Your task to perform on an android device: Set the phone to "Do not disturb". Image 0: 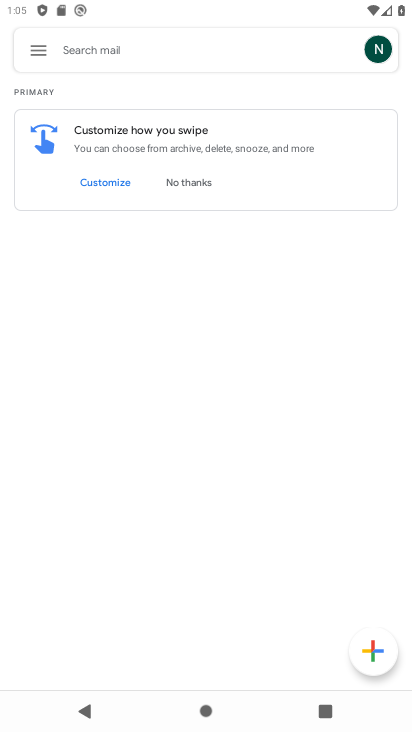
Step 0: press home button
Your task to perform on an android device: Set the phone to "Do not disturb". Image 1: 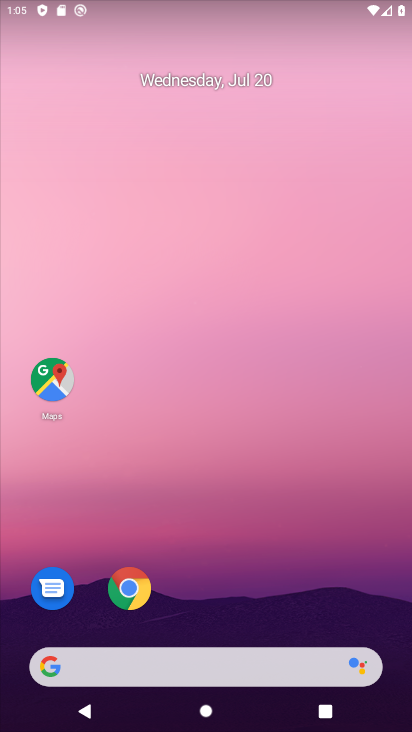
Step 1: drag from (376, 619) to (290, 164)
Your task to perform on an android device: Set the phone to "Do not disturb". Image 2: 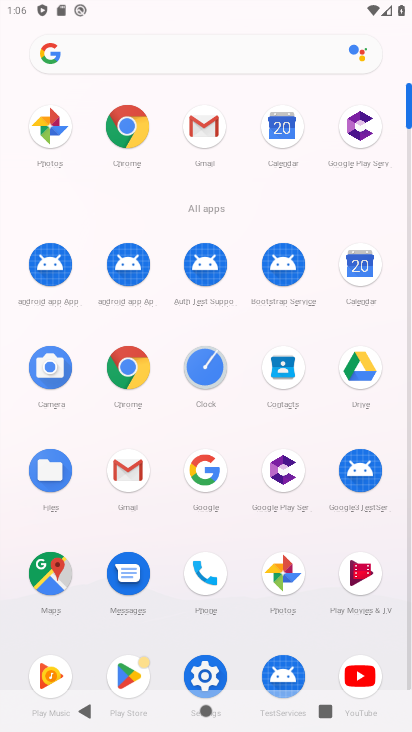
Step 2: click (217, 671)
Your task to perform on an android device: Set the phone to "Do not disturb". Image 3: 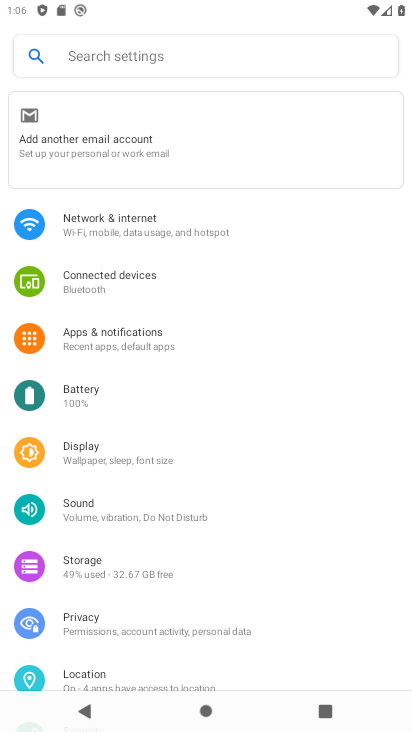
Step 3: click (179, 513)
Your task to perform on an android device: Set the phone to "Do not disturb". Image 4: 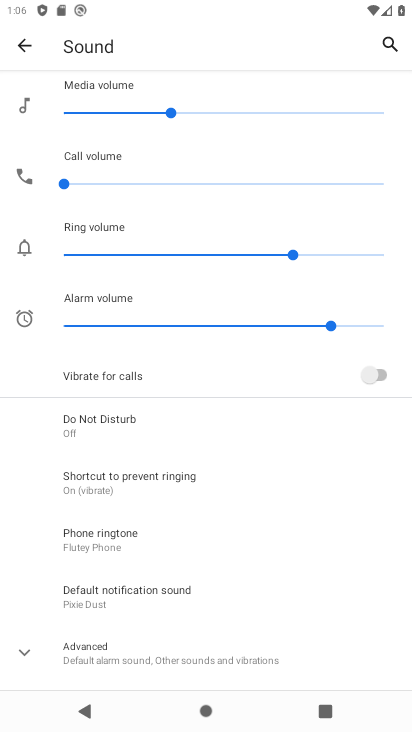
Step 4: click (197, 427)
Your task to perform on an android device: Set the phone to "Do not disturb". Image 5: 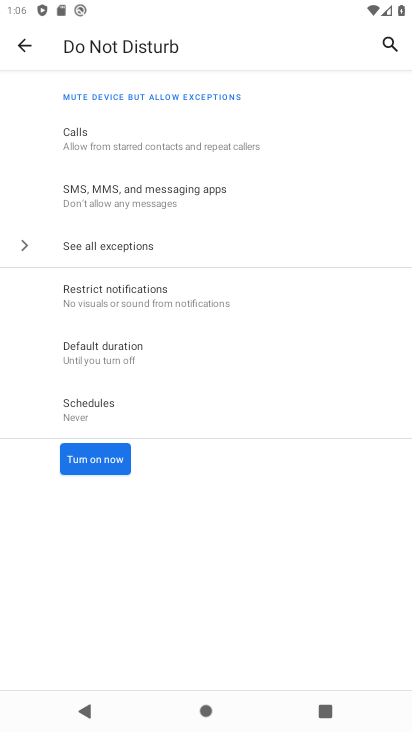
Step 5: click (116, 458)
Your task to perform on an android device: Set the phone to "Do not disturb". Image 6: 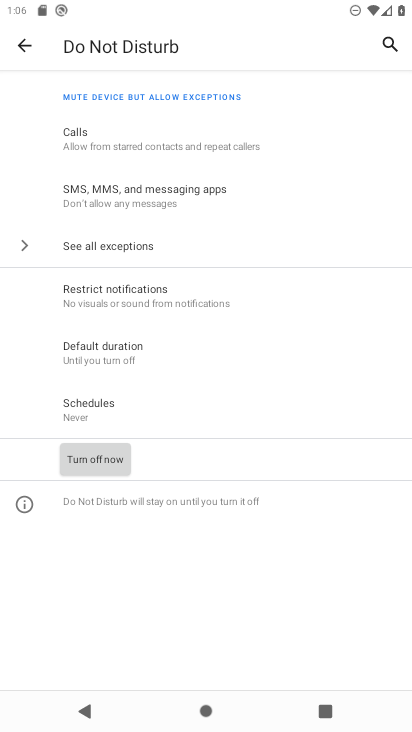
Step 6: task complete